Your task to perform on an android device: delete browsing data in the chrome app Image 0: 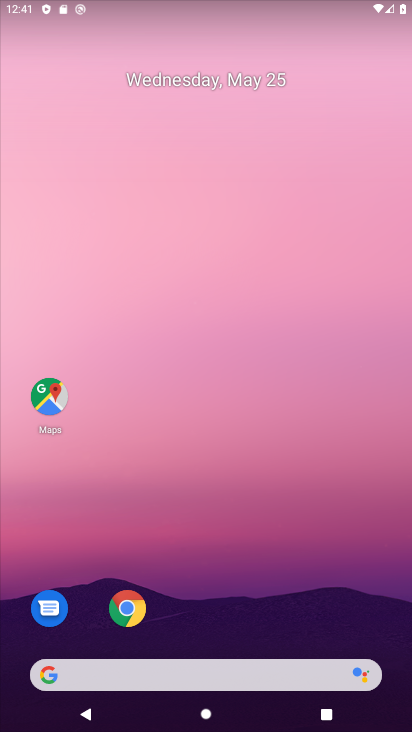
Step 0: drag from (265, 727) to (199, 7)
Your task to perform on an android device: delete browsing data in the chrome app Image 1: 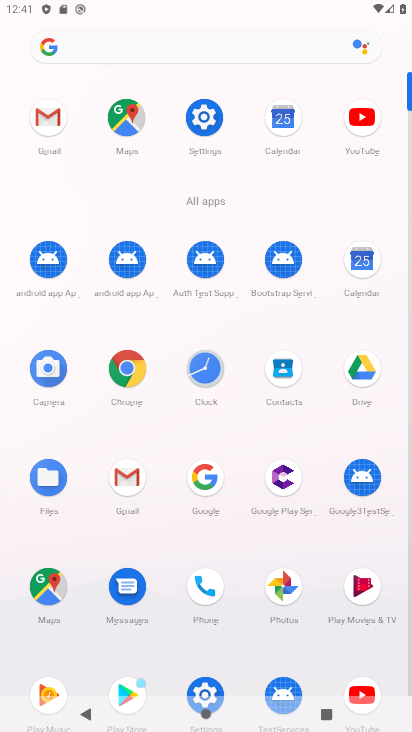
Step 1: click (133, 369)
Your task to perform on an android device: delete browsing data in the chrome app Image 2: 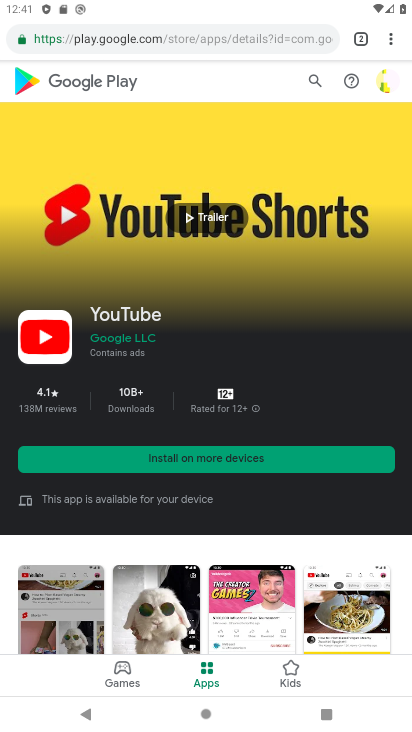
Step 2: click (391, 35)
Your task to perform on an android device: delete browsing data in the chrome app Image 3: 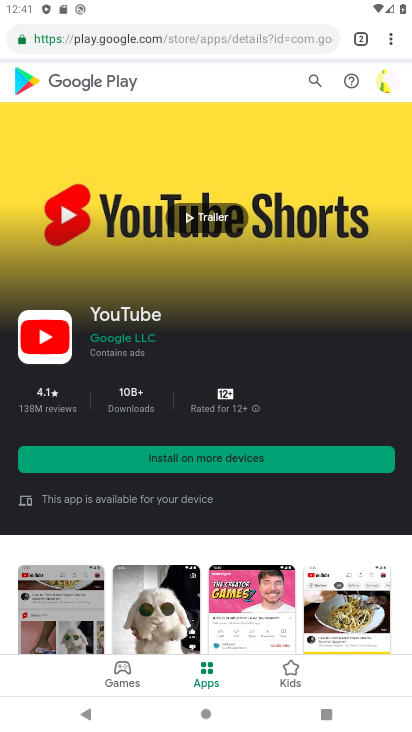
Step 3: click (391, 33)
Your task to perform on an android device: delete browsing data in the chrome app Image 4: 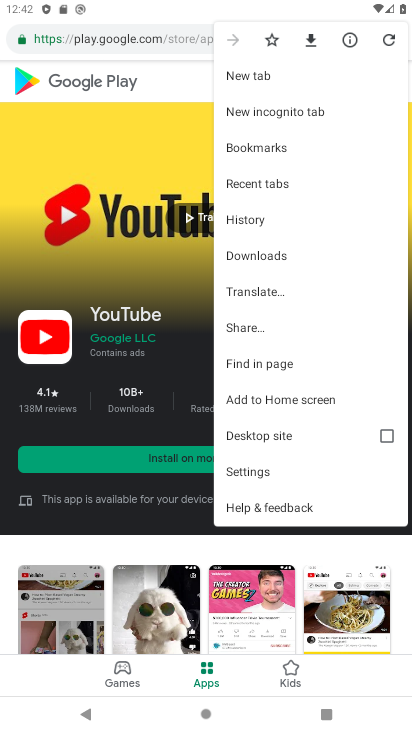
Step 4: click (278, 474)
Your task to perform on an android device: delete browsing data in the chrome app Image 5: 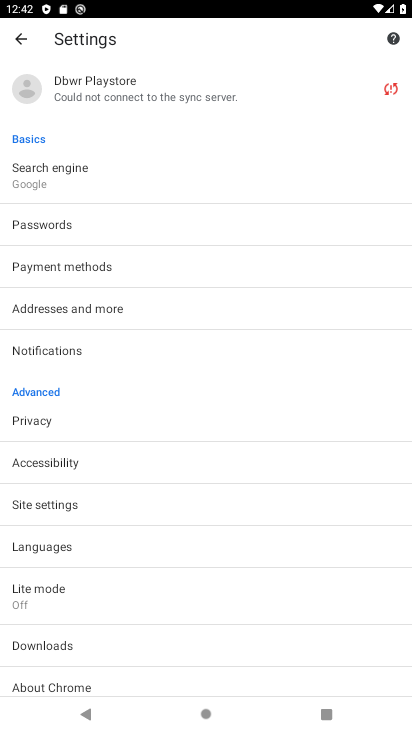
Step 5: press home button
Your task to perform on an android device: delete browsing data in the chrome app Image 6: 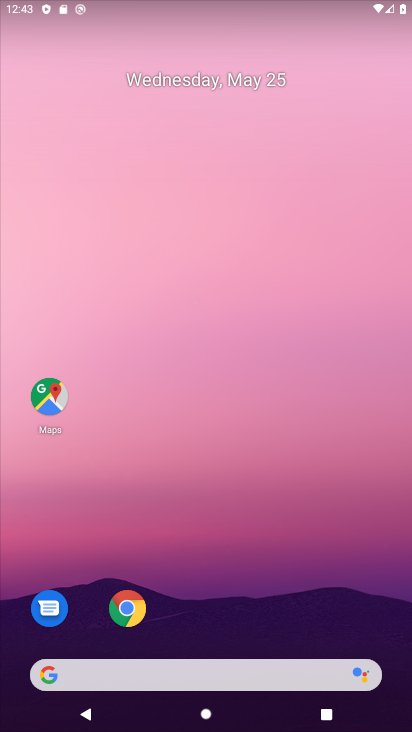
Step 6: click (127, 615)
Your task to perform on an android device: delete browsing data in the chrome app Image 7: 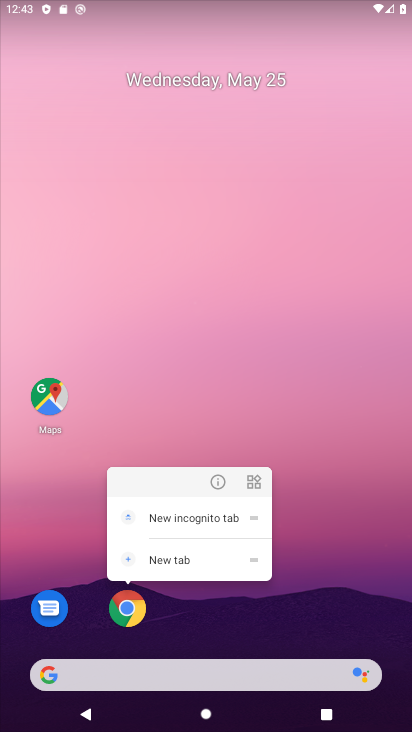
Step 7: click (122, 610)
Your task to perform on an android device: delete browsing data in the chrome app Image 8: 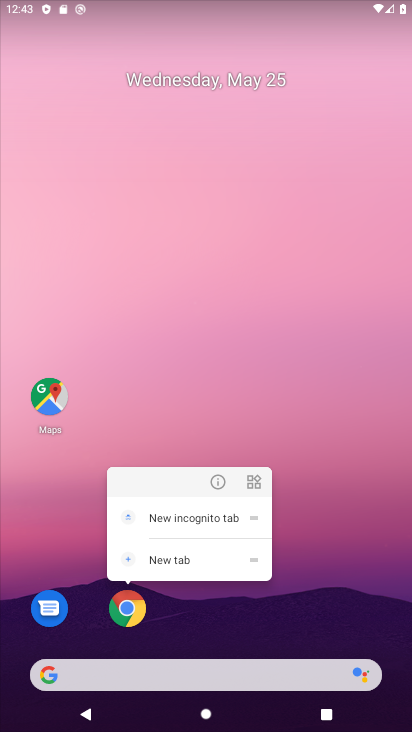
Step 8: click (122, 610)
Your task to perform on an android device: delete browsing data in the chrome app Image 9: 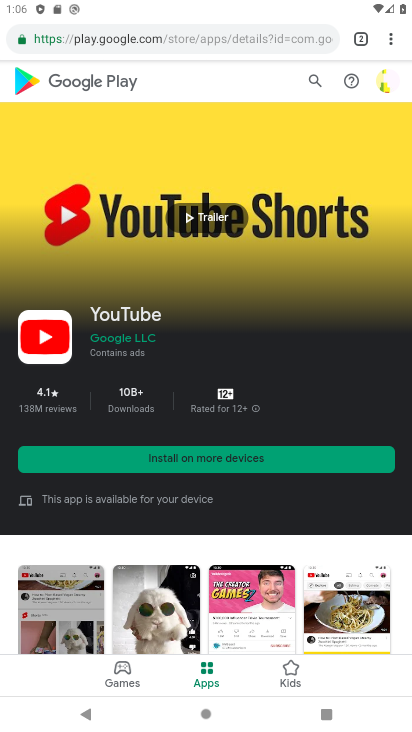
Step 9: click (392, 33)
Your task to perform on an android device: delete browsing data in the chrome app Image 10: 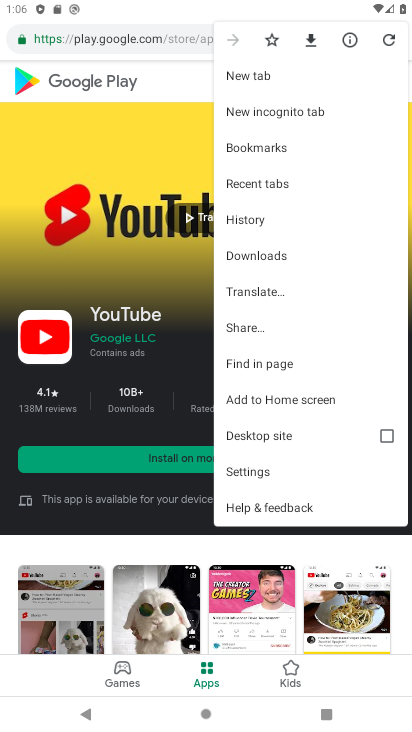
Step 10: click (273, 219)
Your task to perform on an android device: delete browsing data in the chrome app Image 11: 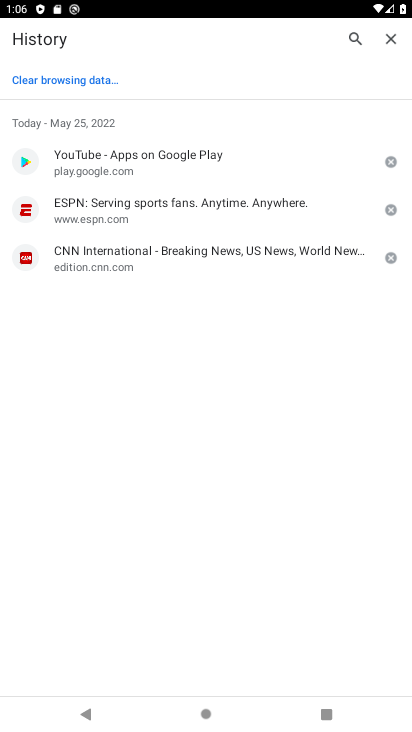
Step 11: click (87, 75)
Your task to perform on an android device: delete browsing data in the chrome app Image 12: 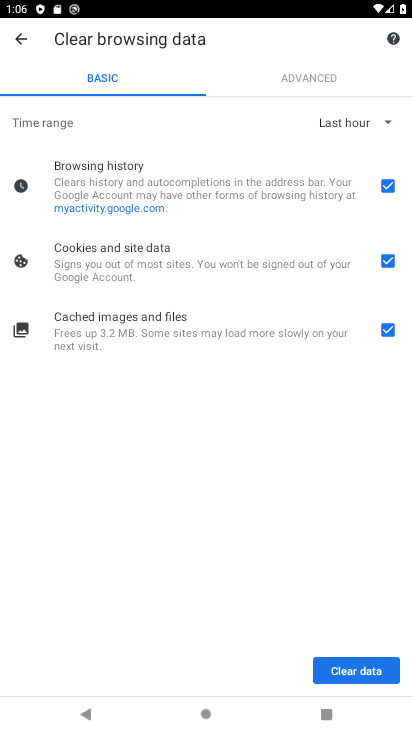
Step 12: click (353, 671)
Your task to perform on an android device: delete browsing data in the chrome app Image 13: 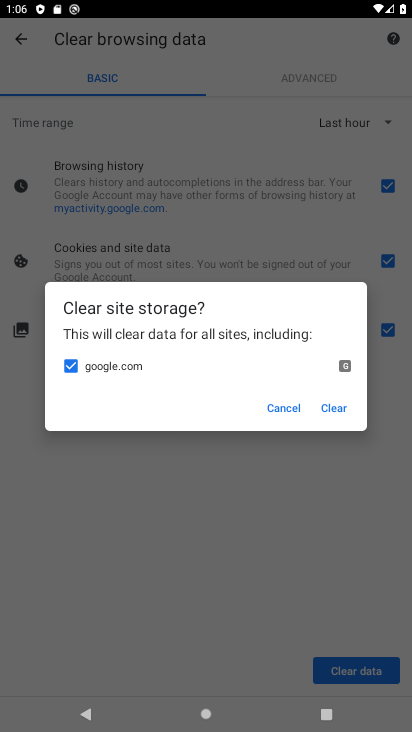
Step 13: click (339, 407)
Your task to perform on an android device: delete browsing data in the chrome app Image 14: 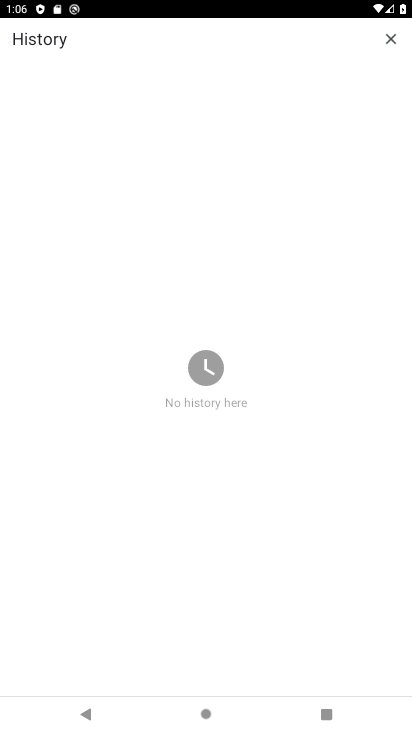
Step 14: task complete